Your task to perform on an android device: visit the assistant section in the google photos Image 0: 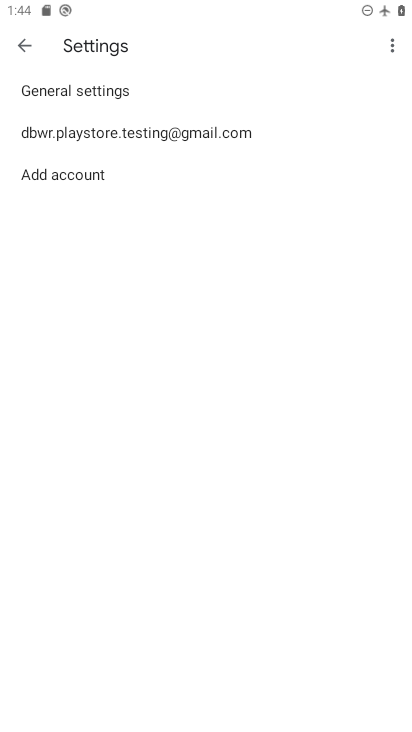
Step 0: press home button
Your task to perform on an android device: visit the assistant section in the google photos Image 1: 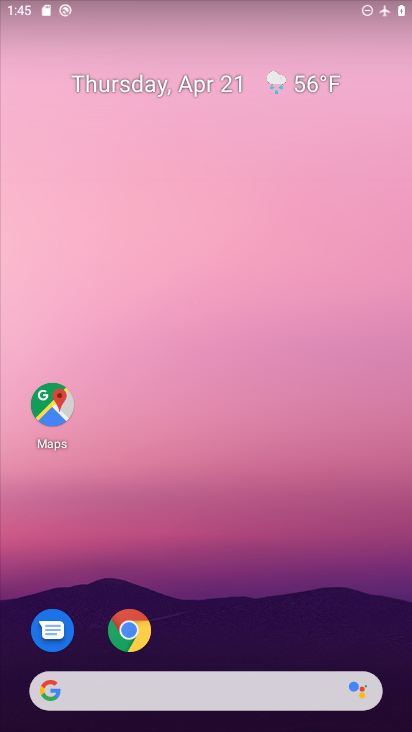
Step 1: drag from (220, 686) to (246, 240)
Your task to perform on an android device: visit the assistant section in the google photos Image 2: 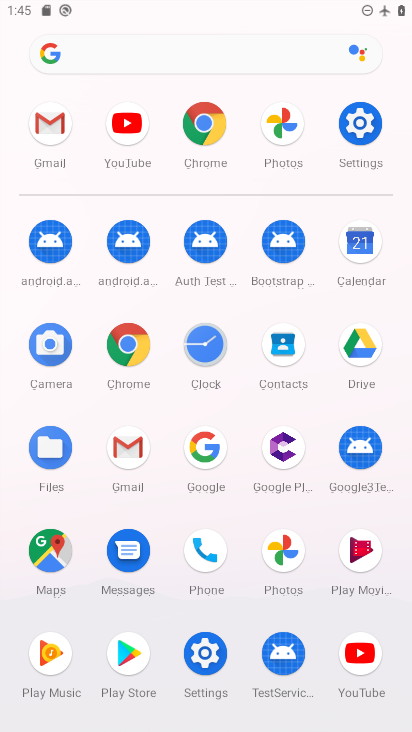
Step 2: click (293, 552)
Your task to perform on an android device: visit the assistant section in the google photos Image 3: 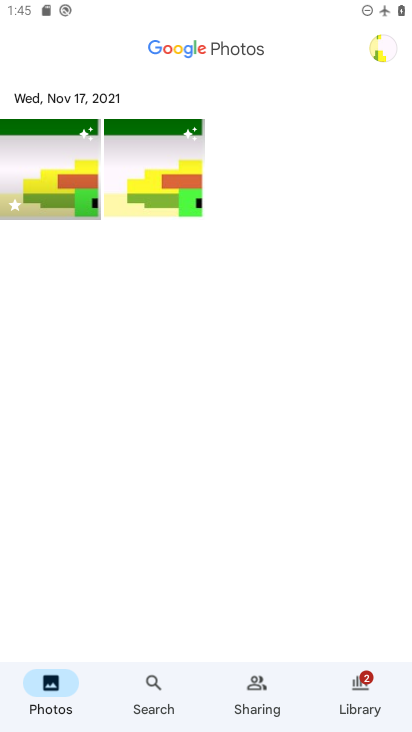
Step 3: task complete